Your task to perform on an android device: Open my contact list Image 0: 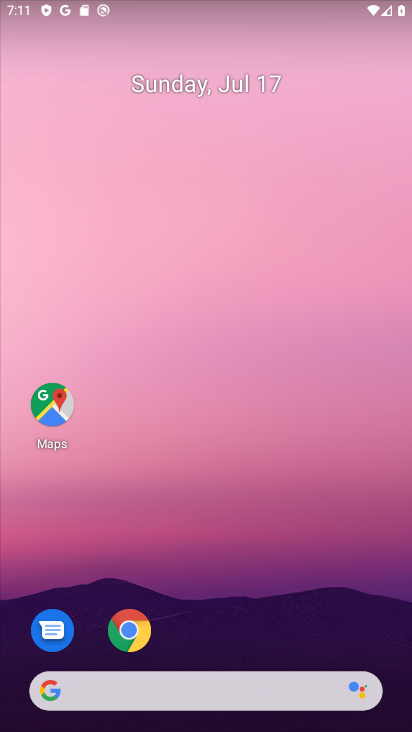
Step 0: drag from (172, 637) to (217, 0)
Your task to perform on an android device: Open my contact list Image 1: 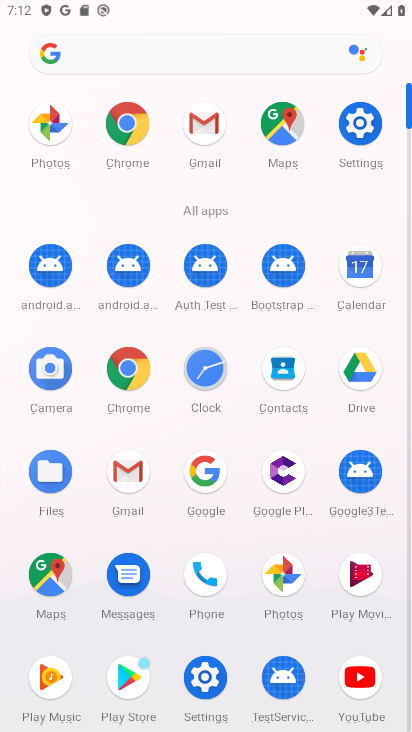
Step 1: click (292, 407)
Your task to perform on an android device: Open my contact list Image 2: 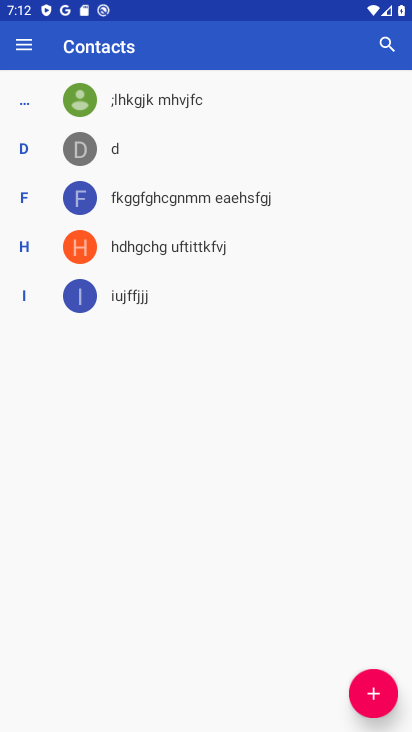
Step 2: task complete